Your task to perform on an android device: open app "PlayWell" (install if not already installed) and enter user name: "metric@gmail.com" and password: "bumblebee" Image 0: 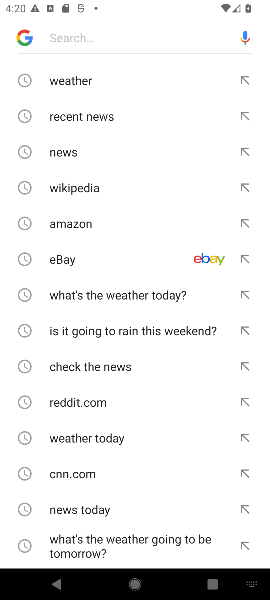
Step 0: press home button
Your task to perform on an android device: open app "PlayWell" (install if not already installed) and enter user name: "metric@gmail.com" and password: "bumblebee" Image 1: 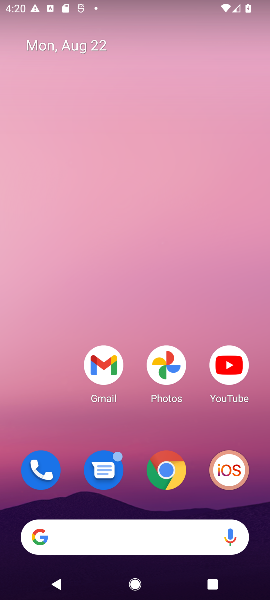
Step 1: drag from (97, 539) to (97, 177)
Your task to perform on an android device: open app "PlayWell" (install if not already installed) and enter user name: "metric@gmail.com" and password: "bumblebee" Image 2: 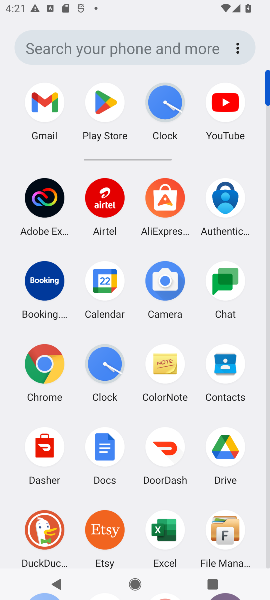
Step 2: click (99, 104)
Your task to perform on an android device: open app "PlayWell" (install if not already installed) and enter user name: "metric@gmail.com" and password: "bumblebee" Image 3: 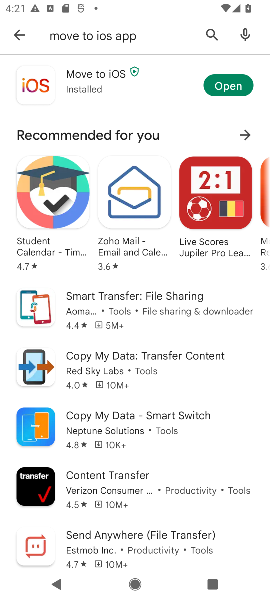
Step 3: click (22, 31)
Your task to perform on an android device: open app "PlayWell" (install if not already installed) and enter user name: "metric@gmail.com" and password: "bumblebee" Image 4: 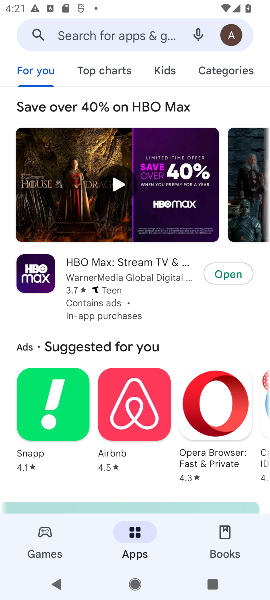
Step 4: click (124, 22)
Your task to perform on an android device: open app "PlayWell" (install if not already installed) and enter user name: "metric@gmail.com" and password: "bumblebee" Image 5: 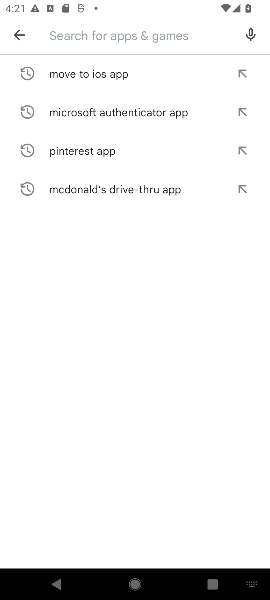
Step 5: type "PlayWell "
Your task to perform on an android device: open app "PlayWell" (install if not already installed) and enter user name: "metric@gmail.com" and password: "bumblebee" Image 6: 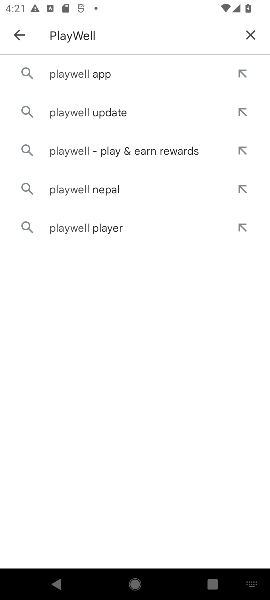
Step 6: click (83, 75)
Your task to perform on an android device: open app "PlayWell" (install if not already installed) and enter user name: "metric@gmail.com" and password: "bumblebee" Image 7: 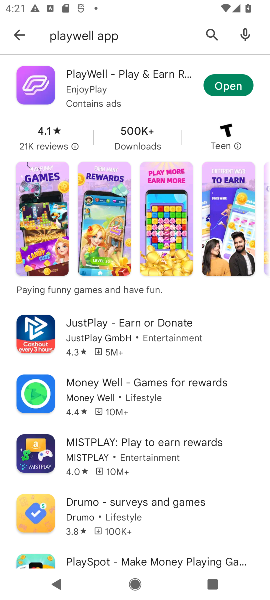
Step 7: click (230, 78)
Your task to perform on an android device: open app "PlayWell" (install if not already installed) and enter user name: "metric@gmail.com" and password: "bumblebee" Image 8: 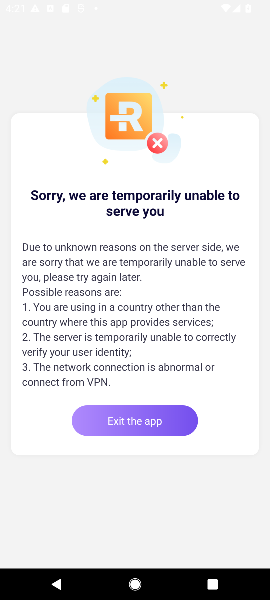
Step 8: task complete